Your task to perform on an android device: open sync settings in chrome Image 0: 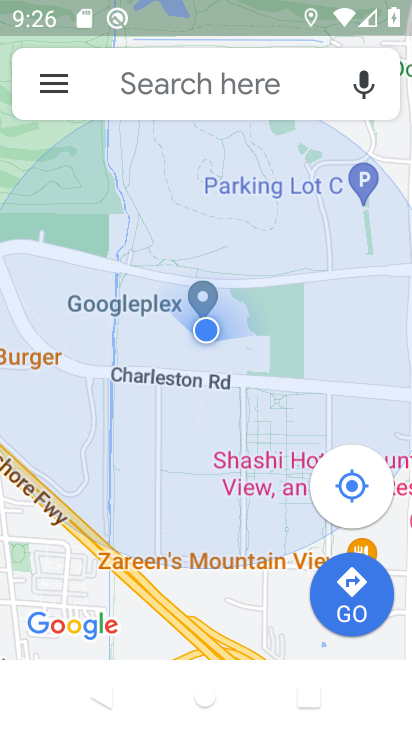
Step 0: press home button
Your task to perform on an android device: open sync settings in chrome Image 1: 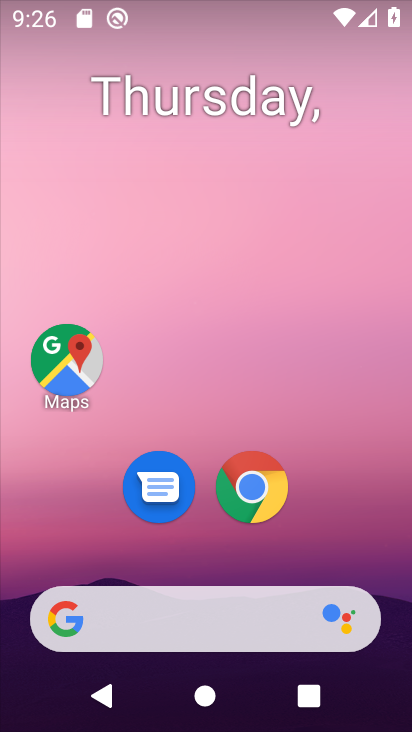
Step 1: click (261, 492)
Your task to perform on an android device: open sync settings in chrome Image 2: 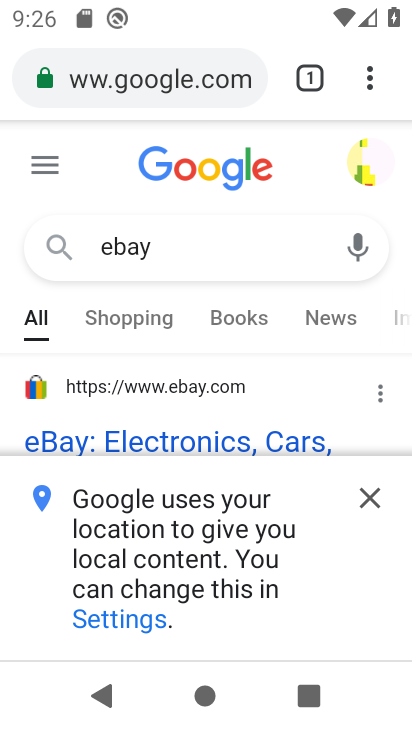
Step 2: click (368, 79)
Your task to perform on an android device: open sync settings in chrome Image 3: 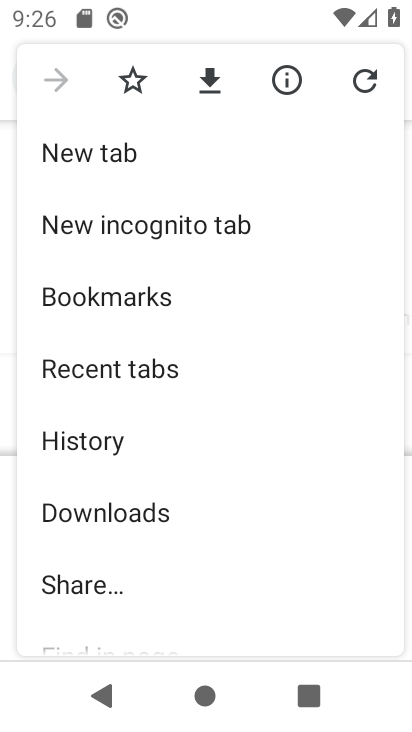
Step 3: drag from (231, 399) to (278, 702)
Your task to perform on an android device: open sync settings in chrome Image 4: 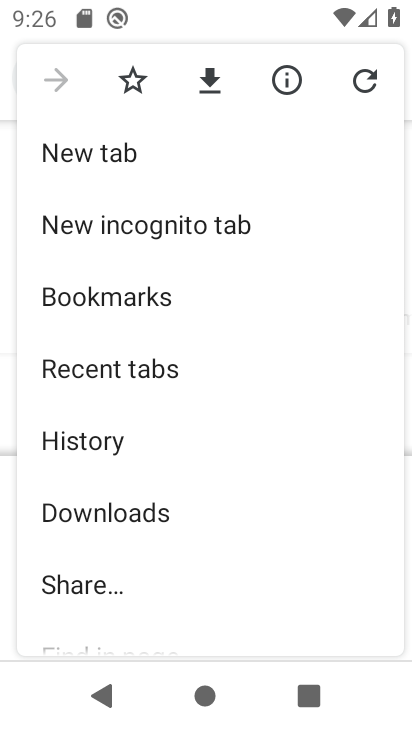
Step 4: drag from (273, 526) to (204, 200)
Your task to perform on an android device: open sync settings in chrome Image 5: 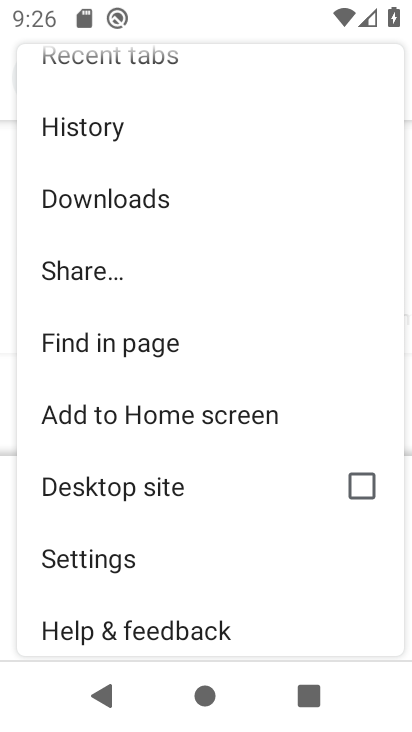
Step 5: click (98, 553)
Your task to perform on an android device: open sync settings in chrome Image 6: 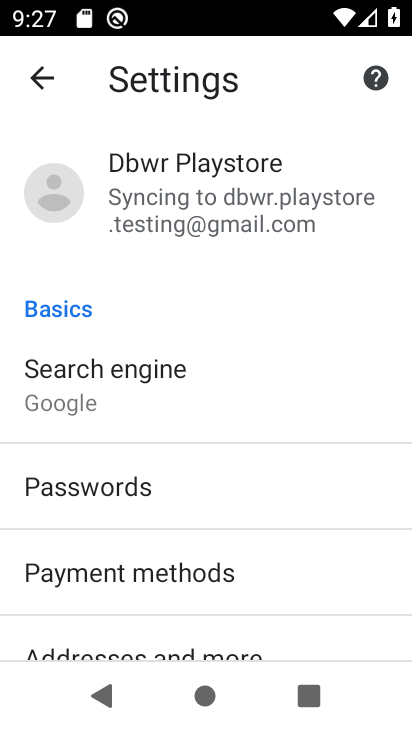
Step 6: click (175, 175)
Your task to perform on an android device: open sync settings in chrome Image 7: 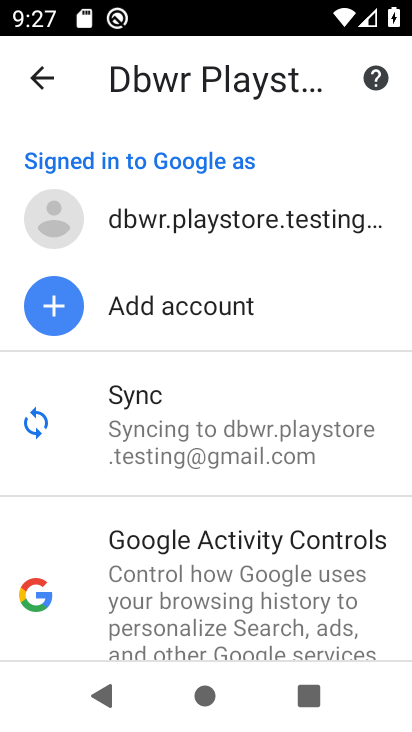
Step 7: task complete